Your task to perform on an android device: change timer sound Image 0: 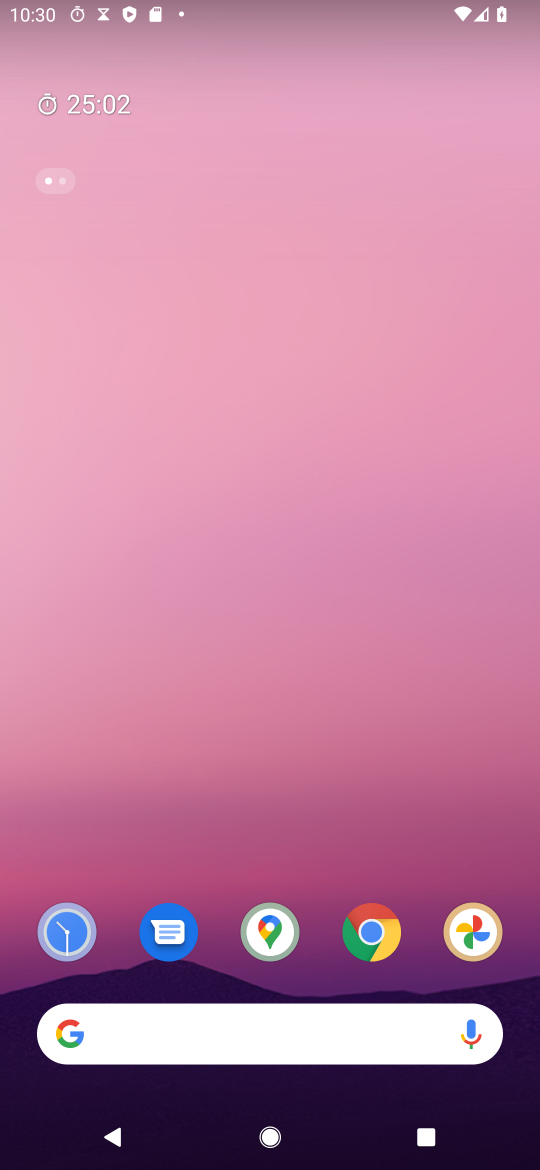
Step 0: click (71, 938)
Your task to perform on an android device: change timer sound Image 1: 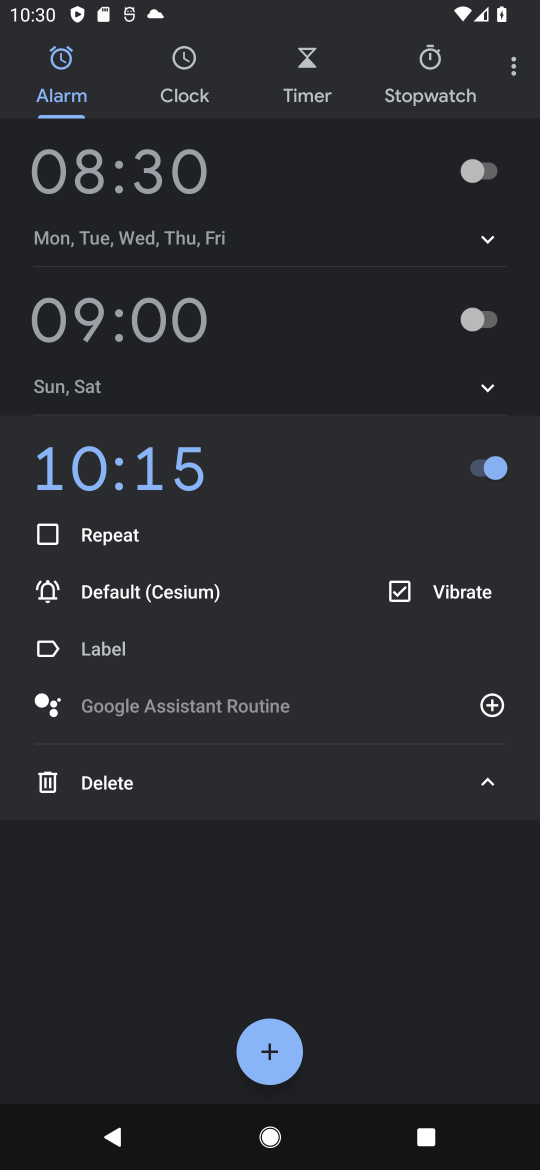
Step 1: click (512, 71)
Your task to perform on an android device: change timer sound Image 2: 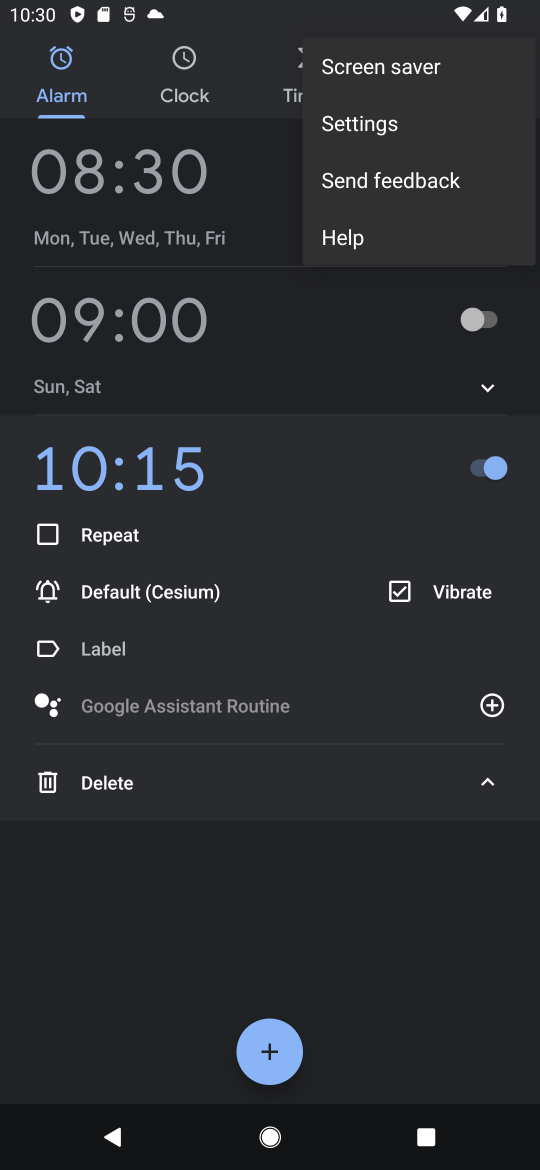
Step 2: click (427, 126)
Your task to perform on an android device: change timer sound Image 3: 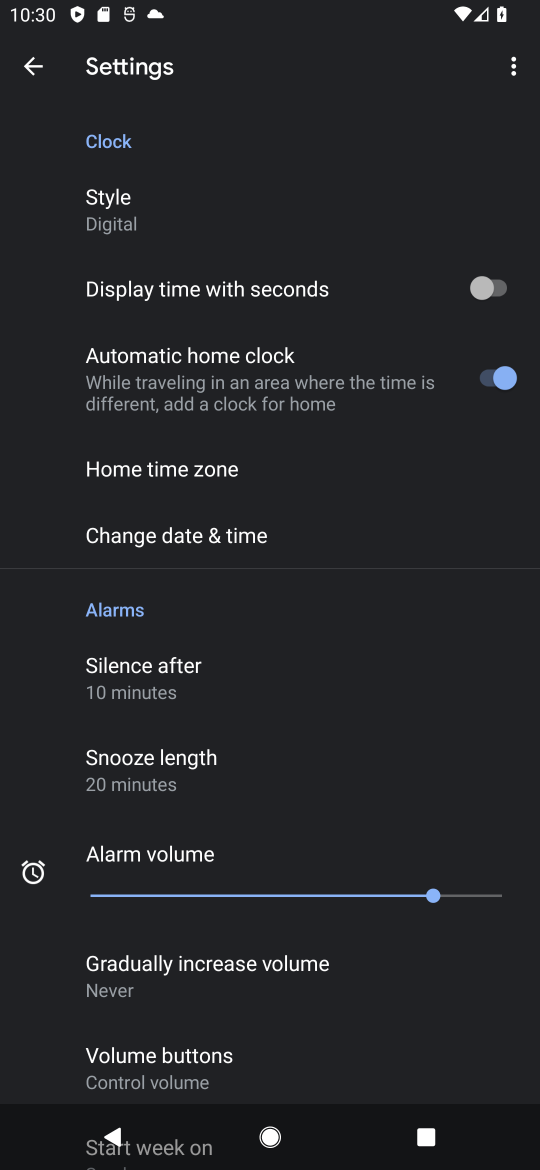
Step 3: drag from (304, 1035) to (221, 322)
Your task to perform on an android device: change timer sound Image 4: 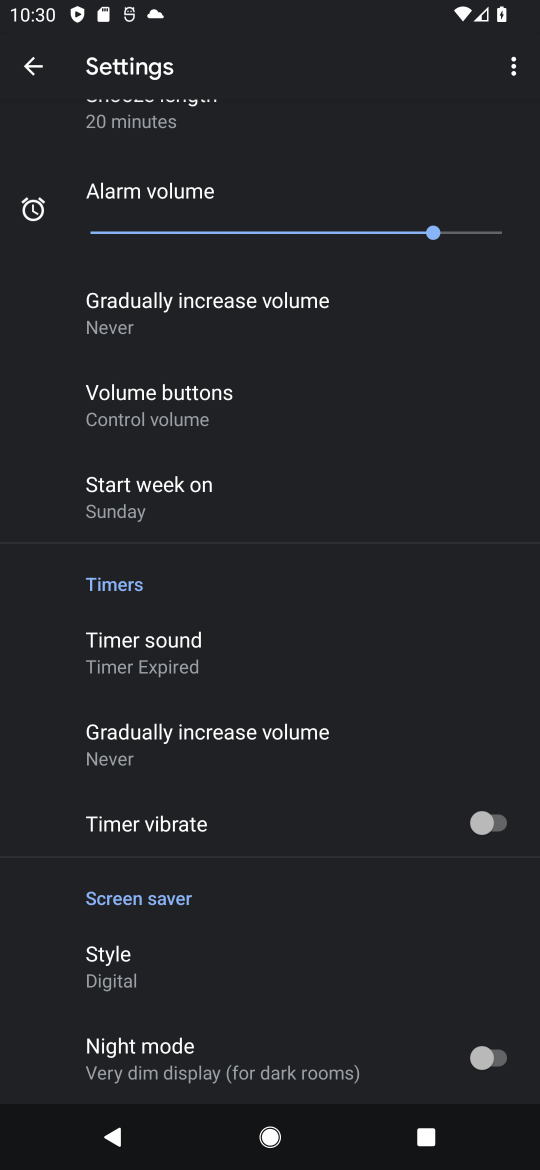
Step 4: click (262, 648)
Your task to perform on an android device: change timer sound Image 5: 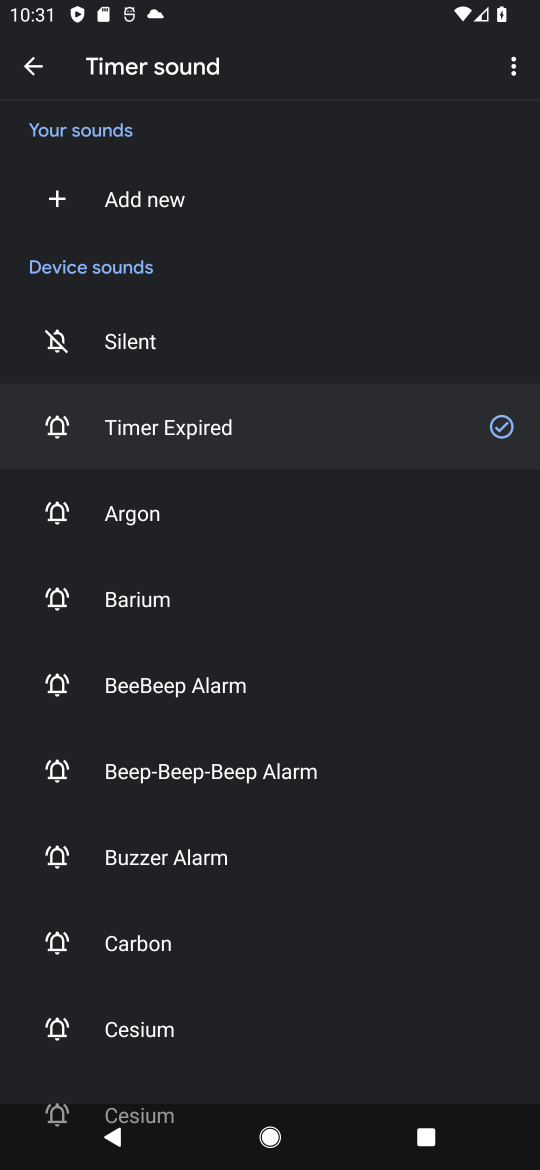
Step 5: click (258, 773)
Your task to perform on an android device: change timer sound Image 6: 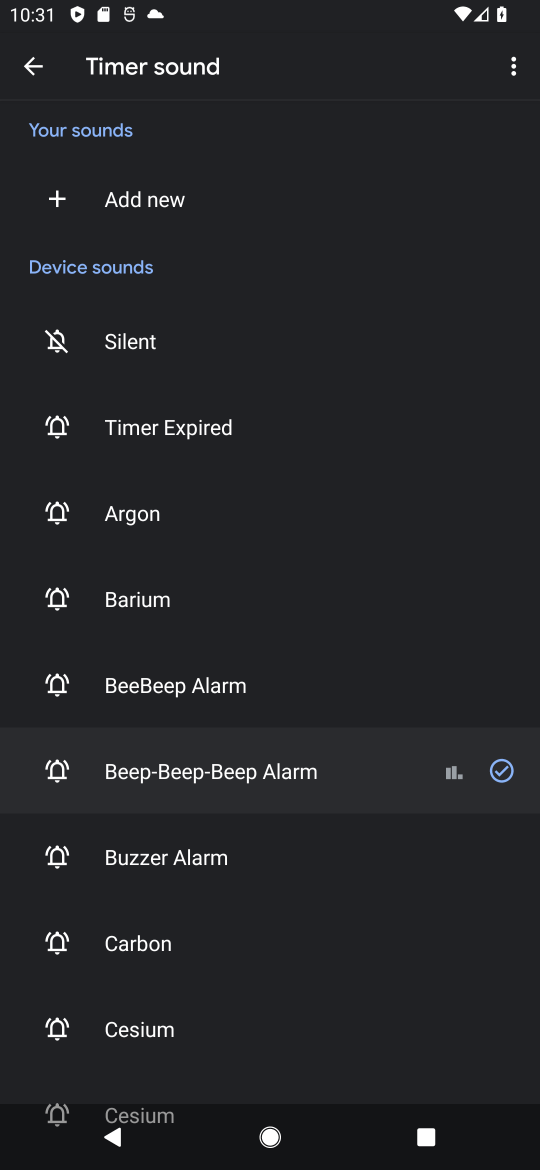
Step 6: task complete